Your task to perform on an android device: choose inbox layout in the gmail app Image 0: 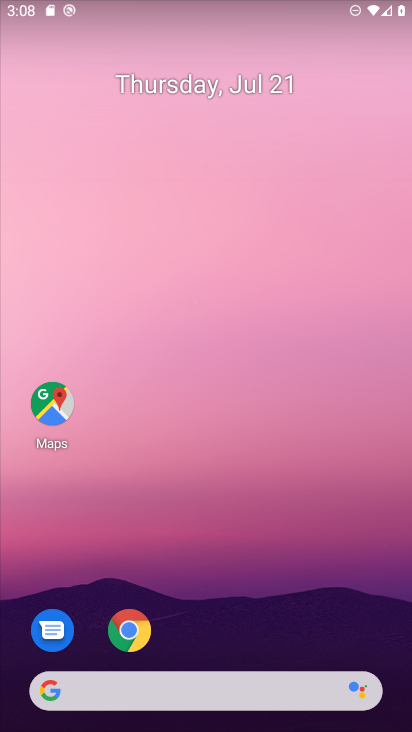
Step 0: drag from (169, 653) to (269, 44)
Your task to perform on an android device: choose inbox layout in the gmail app Image 1: 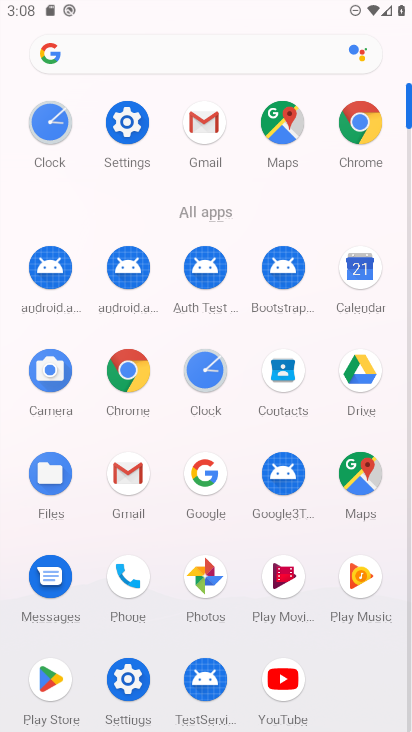
Step 1: click (201, 133)
Your task to perform on an android device: choose inbox layout in the gmail app Image 2: 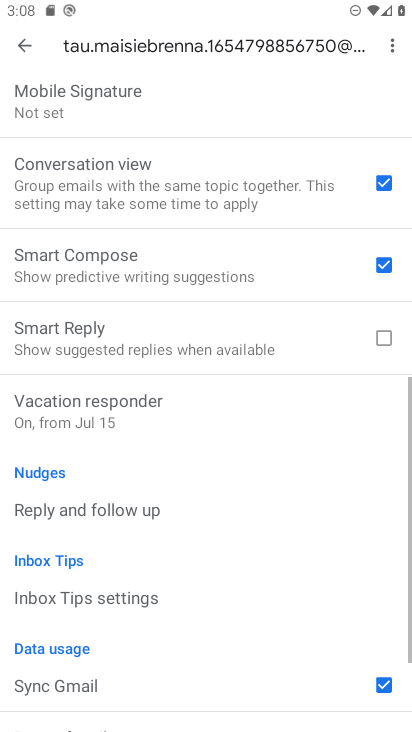
Step 2: drag from (222, 453) to (204, 720)
Your task to perform on an android device: choose inbox layout in the gmail app Image 3: 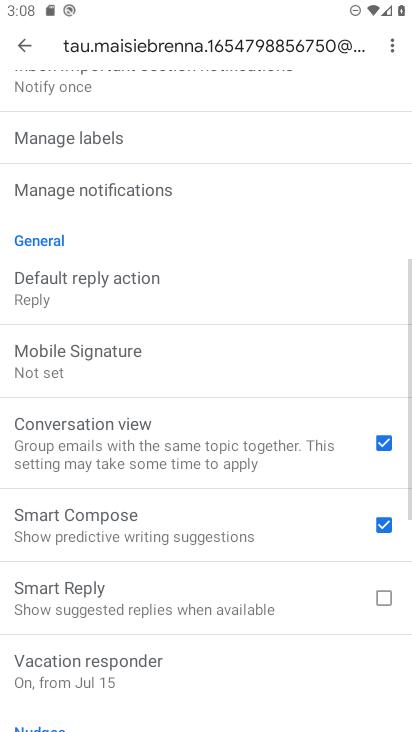
Step 3: drag from (194, 133) to (154, 731)
Your task to perform on an android device: choose inbox layout in the gmail app Image 4: 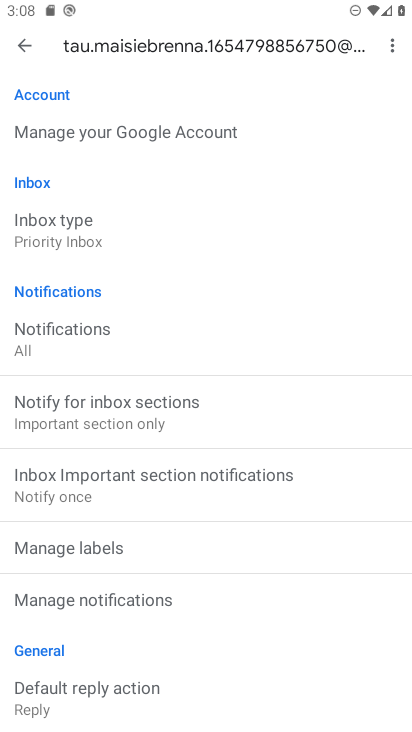
Step 4: click (64, 231)
Your task to perform on an android device: choose inbox layout in the gmail app Image 5: 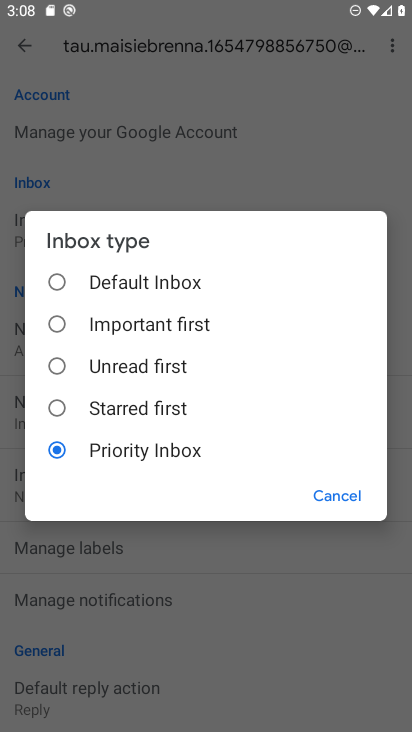
Step 5: click (48, 277)
Your task to perform on an android device: choose inbox layout in the gmail app Image 6: 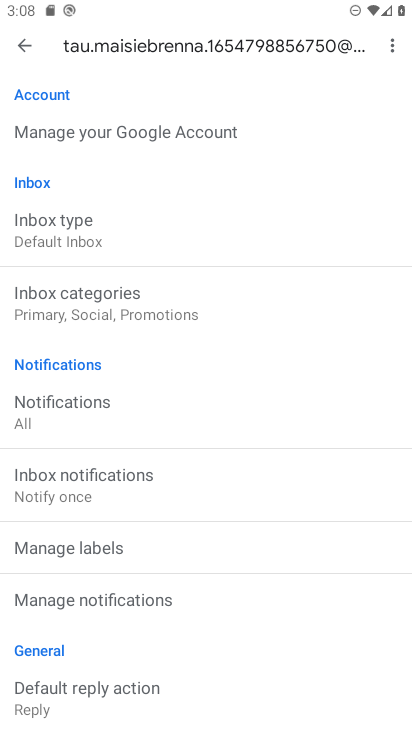
Step 6: task complete